Your task to perform on an android device: check google app version Image 0: 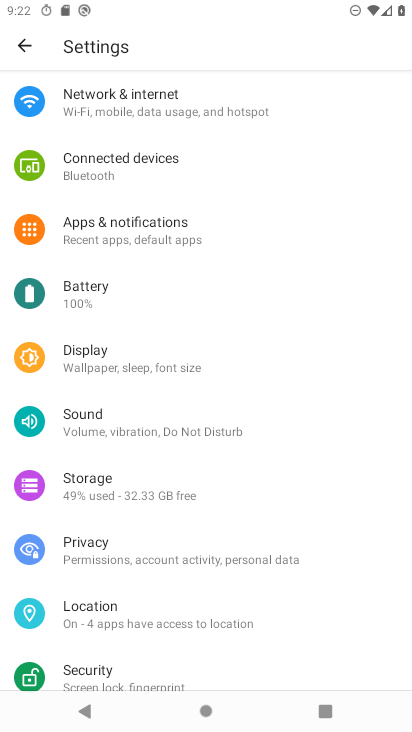
Step 0: press home button
Your task to perform on an android device: check google app version Image 1: 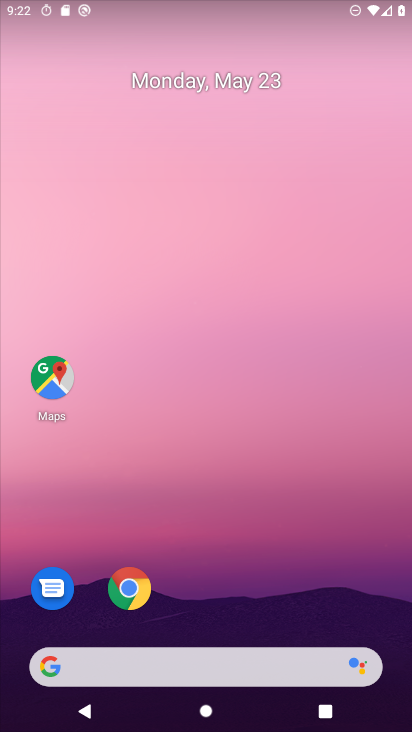
Step 1: drag from (401, 686) to (386, 282)
Your task to perform on an android device: check google app version Image 2: 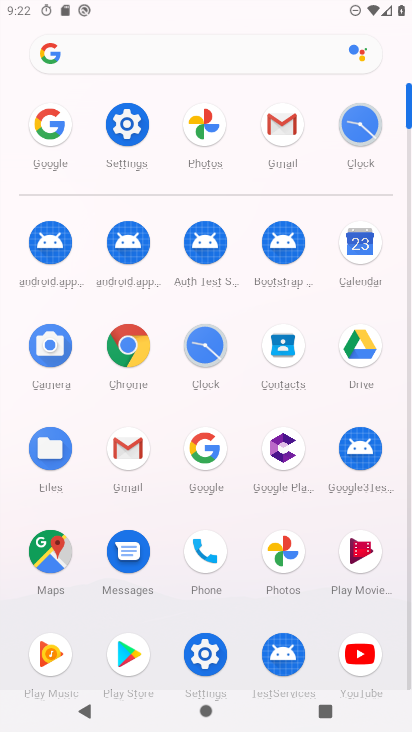
Step 2: click (222, 458)
Your task to perform on an android device: check google app version Image 3: 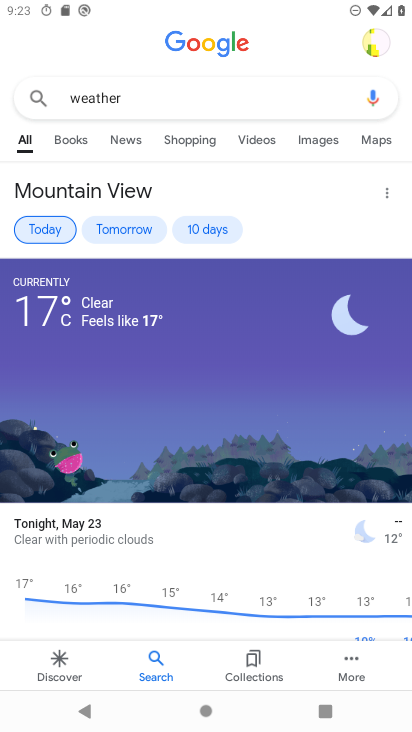
Step 3: click (349, 665)
Your task to perform on an android device: check google app version Image 4: 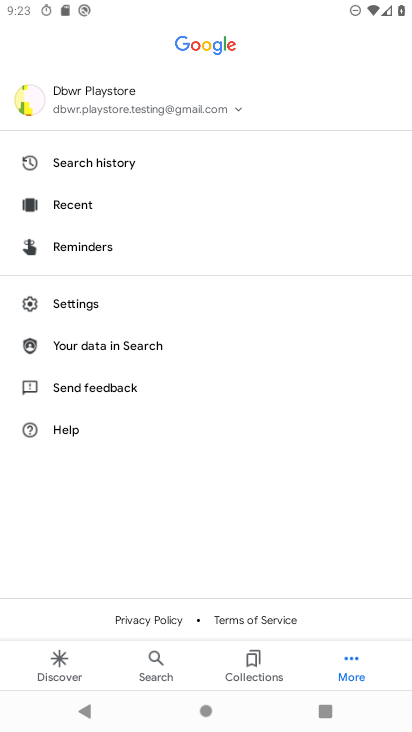
Step 4: click (84, 302)
Your task to perform on an android device: check google app version Image 5: 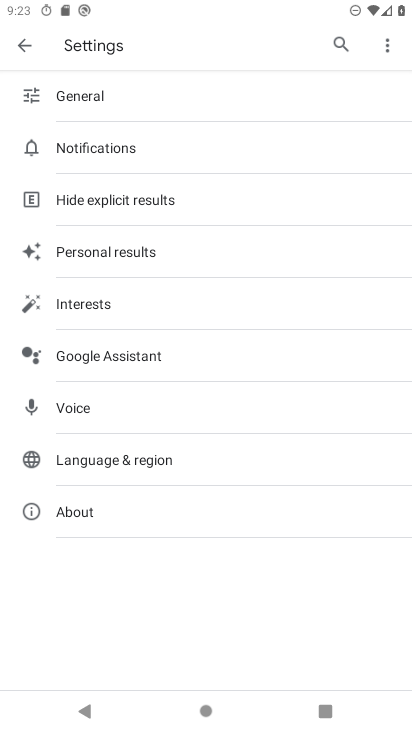
Step 5: click (62, 503)
Your task to perform on an android device: check google app version Image 6: 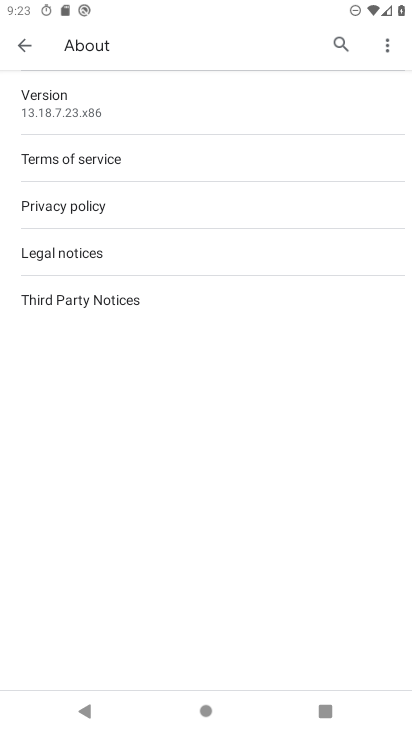
Step 6: click (62, 104)
Your task to perform on an android device: check google app version Image 7: 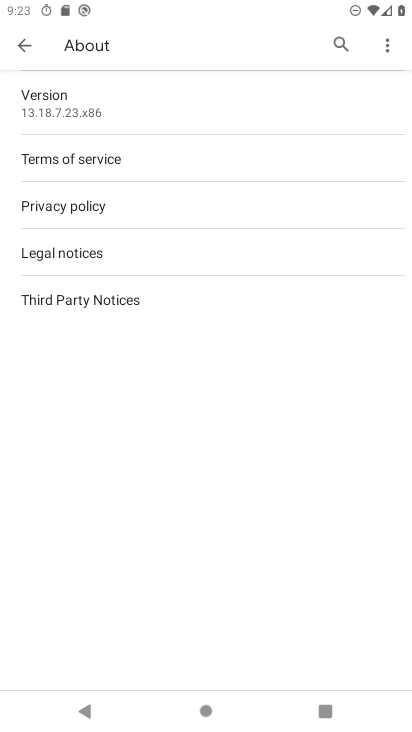
Step 7: task complete